Your task to perform on an android device: turn on the 24-hour format for clock Image 0: 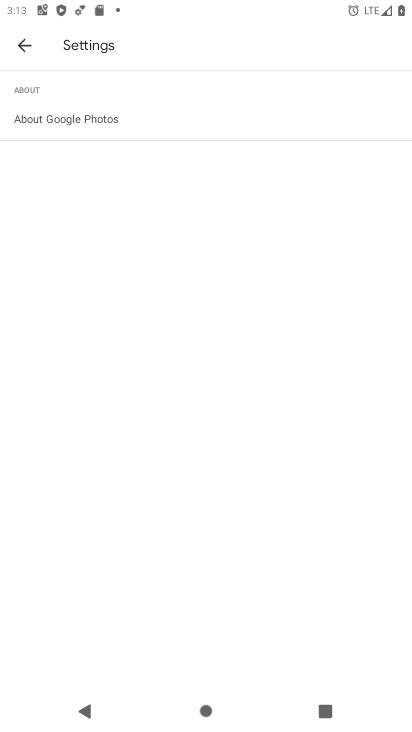
Step 0: press home button
Your task to perform on an android device: turn on the 24-hour format for clock Image 1: 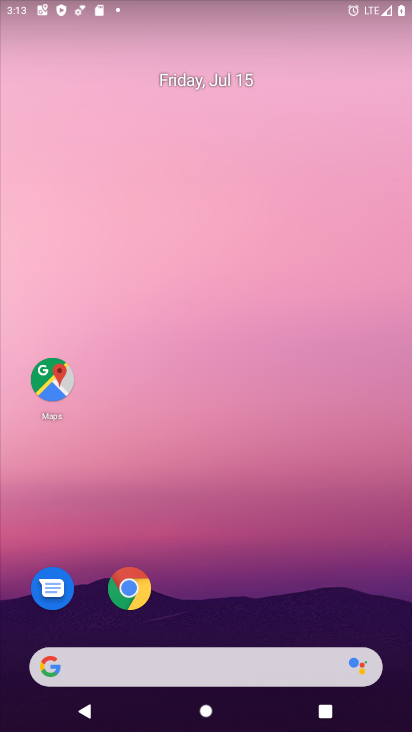
Step 1: drag from (200, 677) to (203, 132)
Your task to perform on an android device: turn on the 24-hour format for clock Image 2: 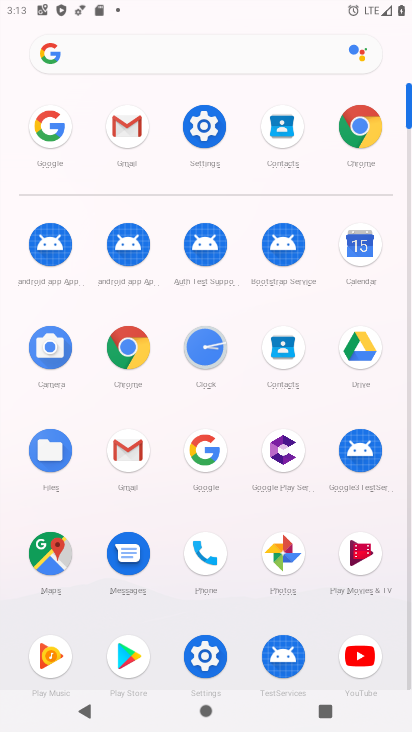
Step 2: click (203, 347)
Your task to perform on an android device: turn on the 24-hour format for clock Image 3: 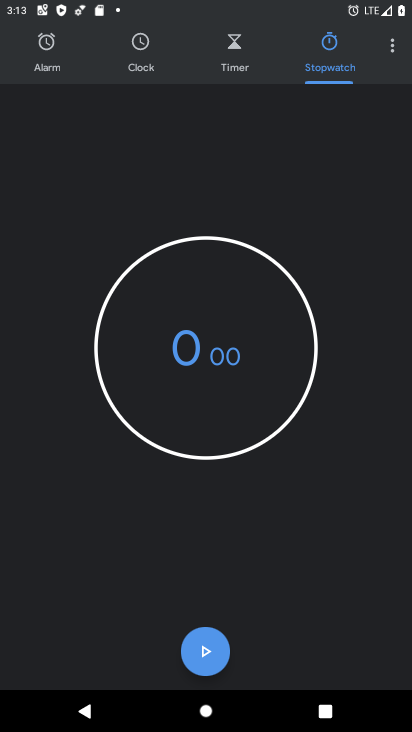
Step 3: click (393, 43)
Your task to perform on an android device: turn on the 24-hour format for clock Image 4: 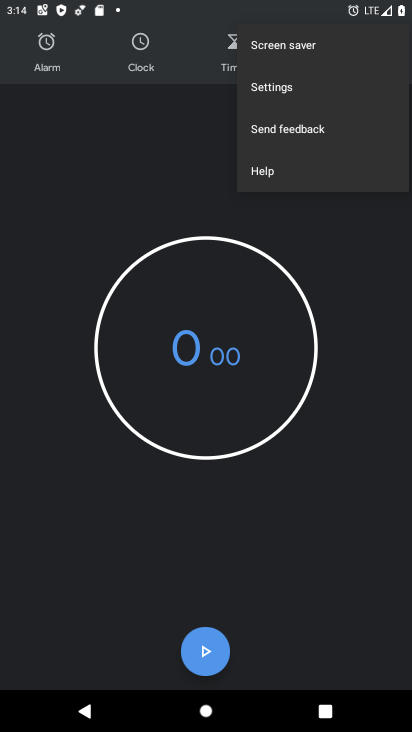
Step 4: click (277, 87)
Your task to perform on an android device: turn on the 24-hour format for clock Image 5: 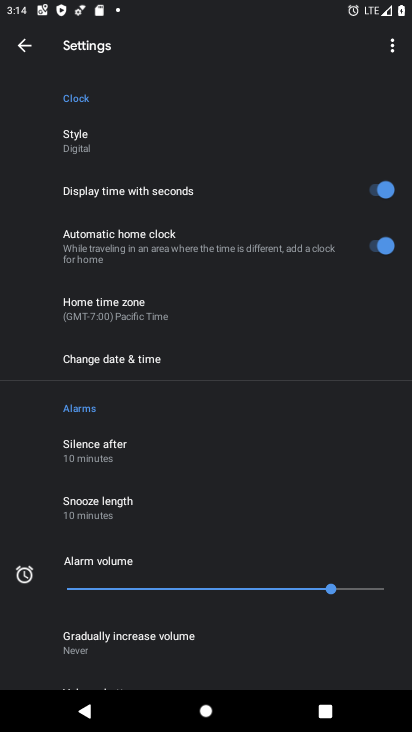
Step 5: click (113, 356)
Your task to perform on an android device: turn on the 24-hour format for clock Image 6: 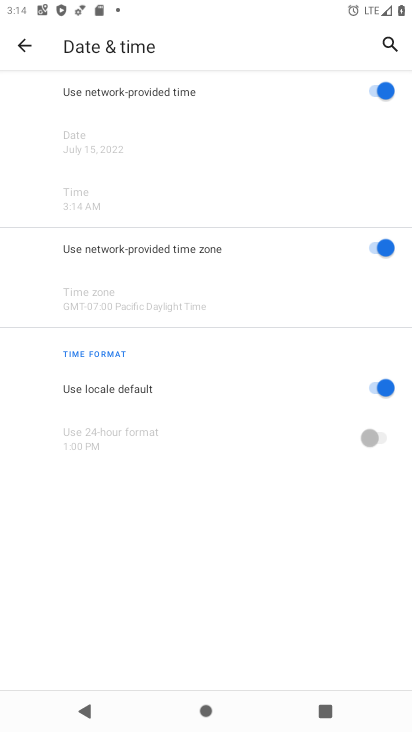
Step 6: click (376, 383)
Your task to perform on an android device: turn on the 24-hour format for clock Image 7: 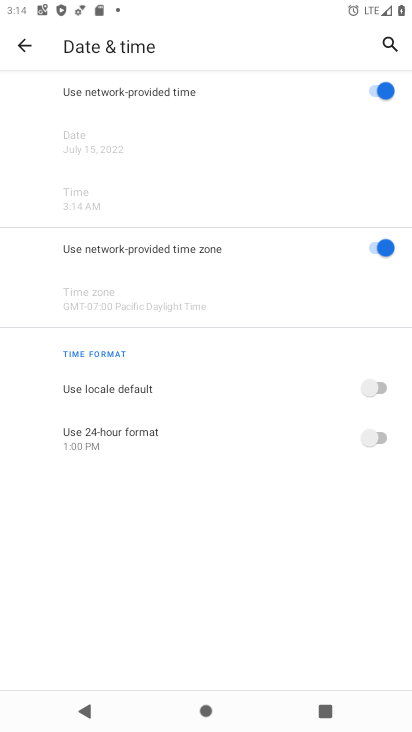
Step 7: click (377, 442)
Your task to perform on an android device: turn on the 24-hour format for clock Image 8: 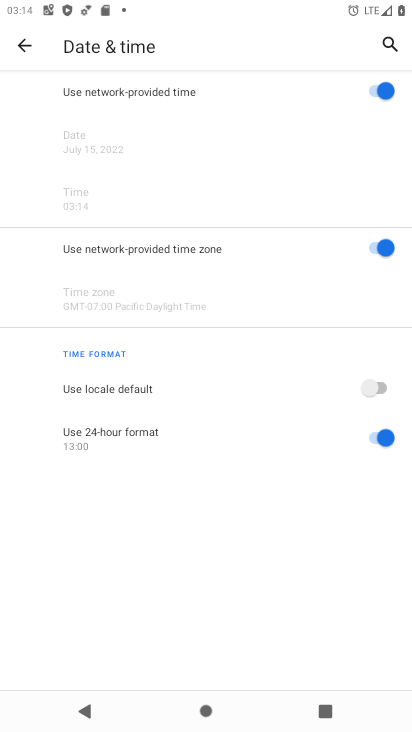
Step 8: task complete